Your task to perform on an android device: Open ESPN.com Image 0: 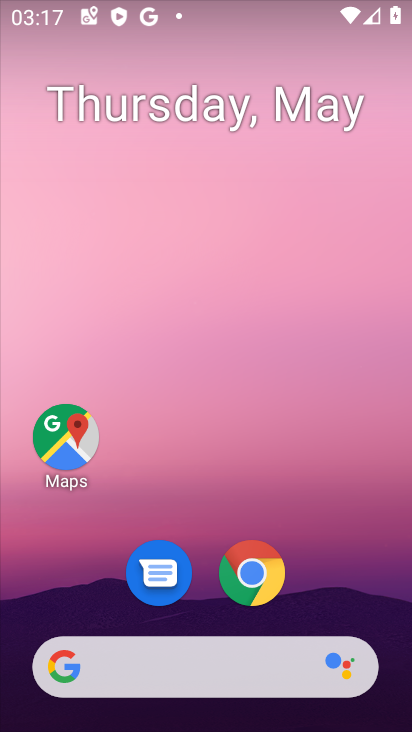
Step 0: click (247, 565)
Your task to perform on an android device: Open ESPN.com Image 1: 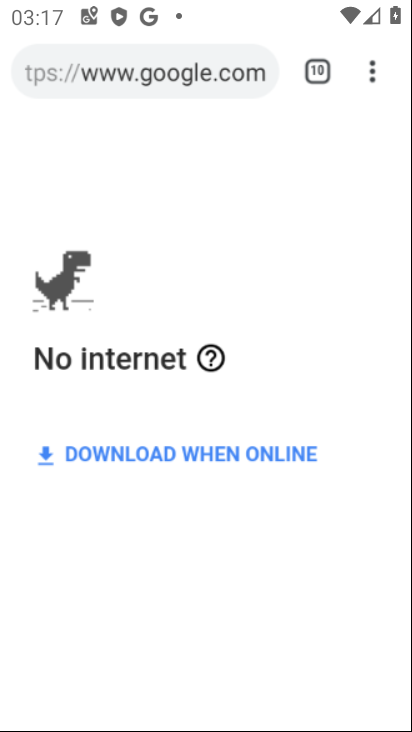
Step 1: click (374, 65)
Your task to perform on an android device: Open ESPN.com Image 2: 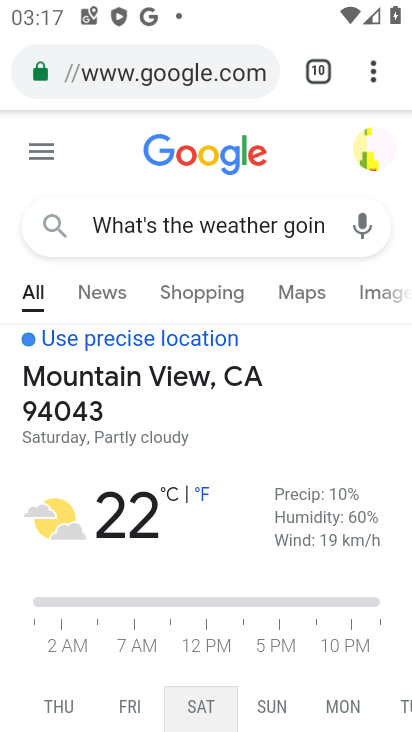
Step 2: click (356, 83)
Your task to perform on an android device: Open ESPN.com Image 3: 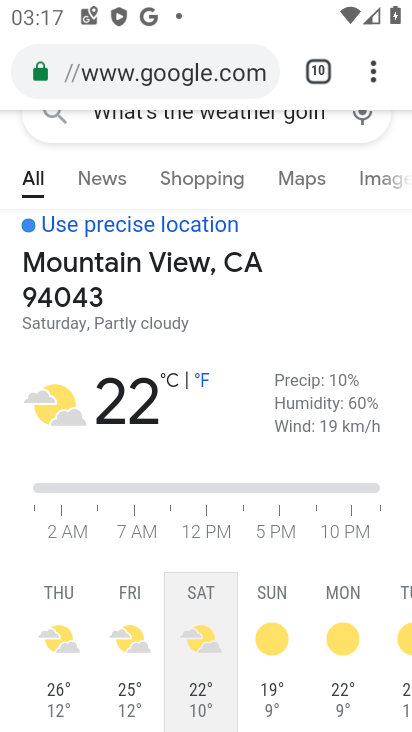
Step 3: click (369, 71)
Your task to perform on an android device: Open ESPN.com Image 4: 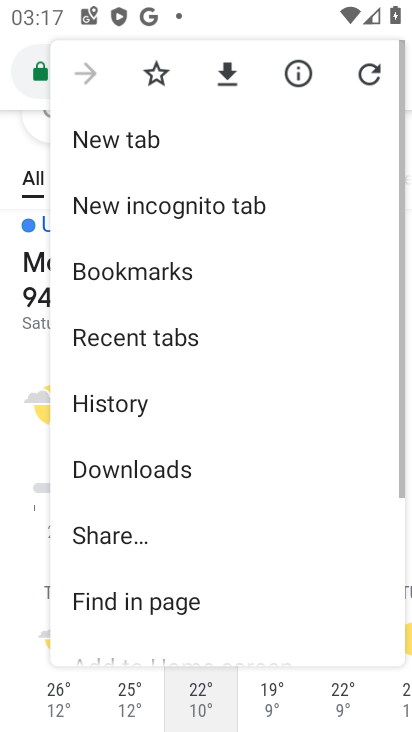
Step 4: click (128, 122)
Your task to perform on an android device: Open ESPN.com Image 5: 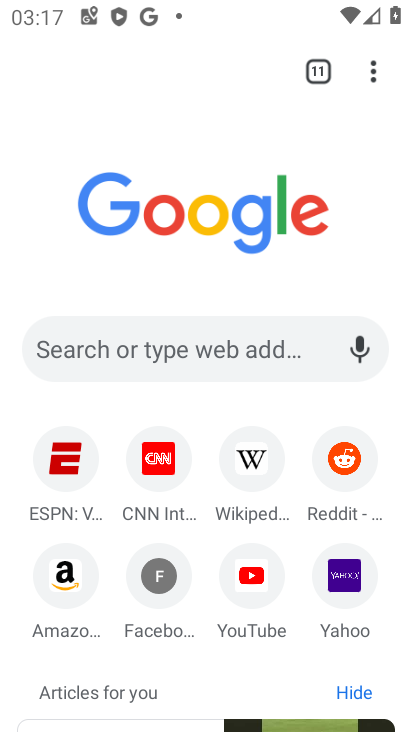
Step 5: click (65, 447)
Your task to perform on an android device: Open ESPN.com Image 6: 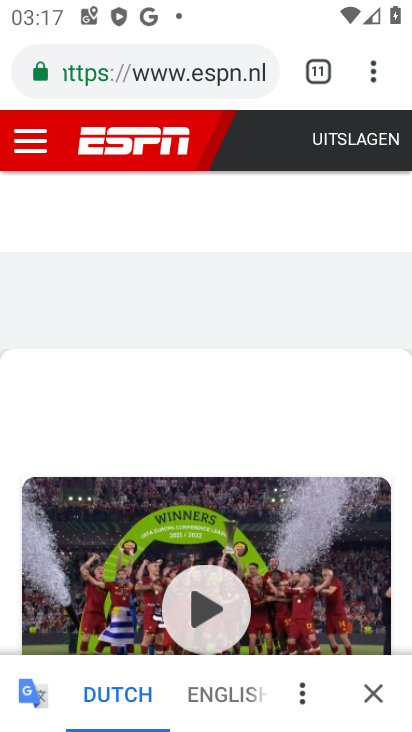
Step 6: task complete